Your task to perform on an android device: What is the news today? Image 0: 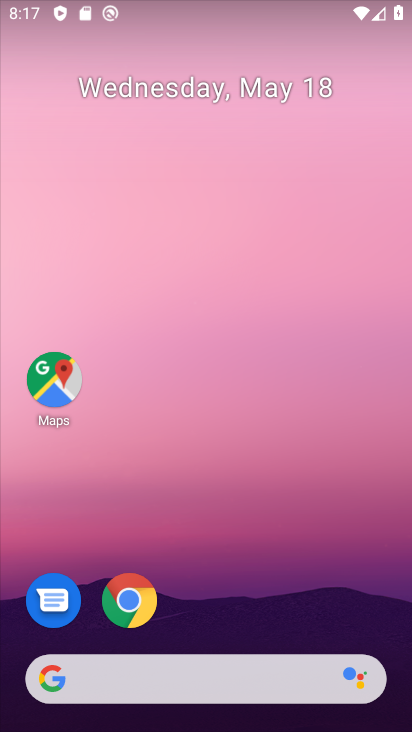
Step 0: click (145, 669)
Your task to perform on an android device: What is the news today? Image 1: 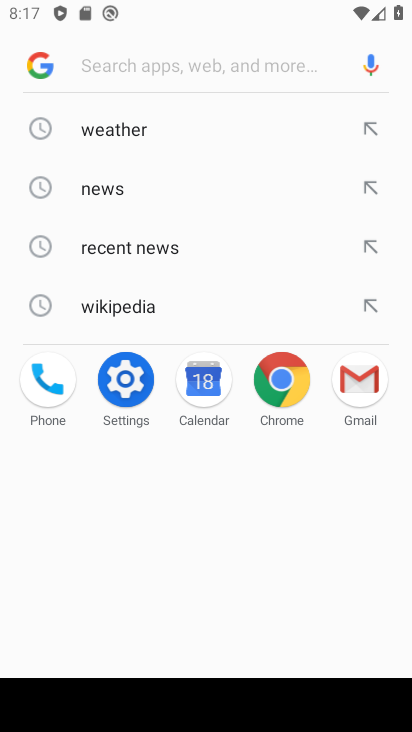
Step 1: click (138, 185)
Your task to perform on an android device: What is the news today? Image 2: 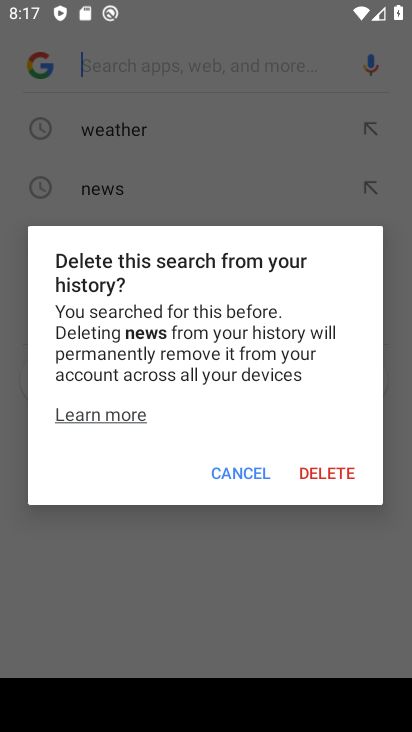
Step 2: click (256, 473)
Your task to perform on an android device: What is the news today? Image 3: 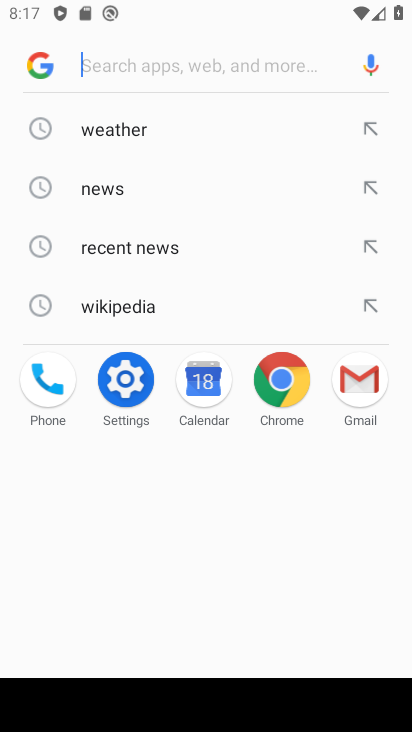
Step 3: click (117, 187)
Your task to perform on an android device: What is the news today? Image 4: 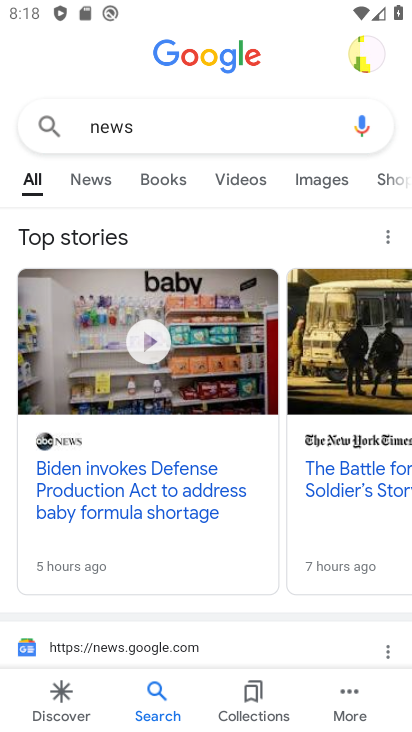
Step 4: task complete